Your task to perform on an android device: Open location settings Image 0: 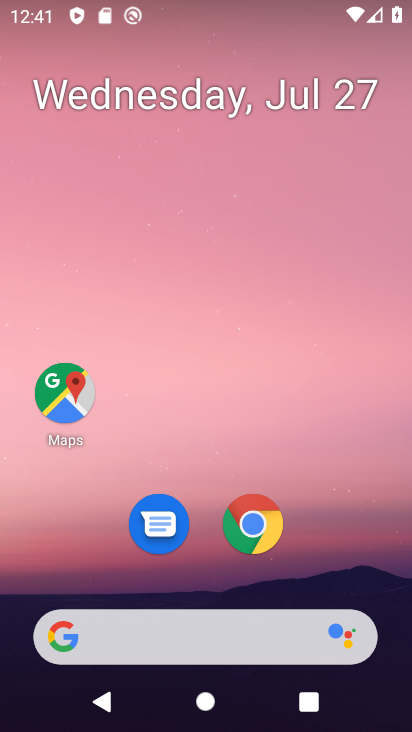
Step 0: drag from (317, 523) to (363, 42)
Your task to perform on an android device: Open location settings Image 1: 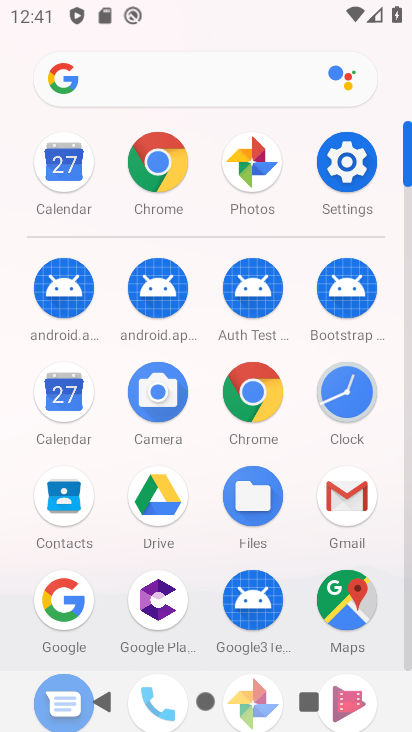
Step 1: click (357, 164)
Your task to perform on an android device: Open location settings Image 2: 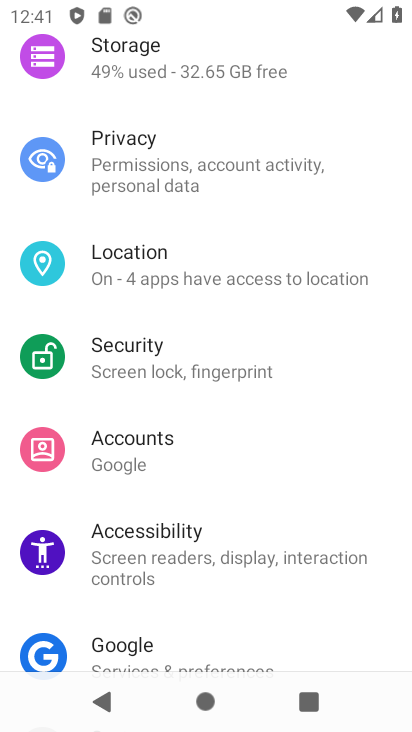
Step 2: click (226, 271)
Your task to perform on an android device: Open location settings Image 3: 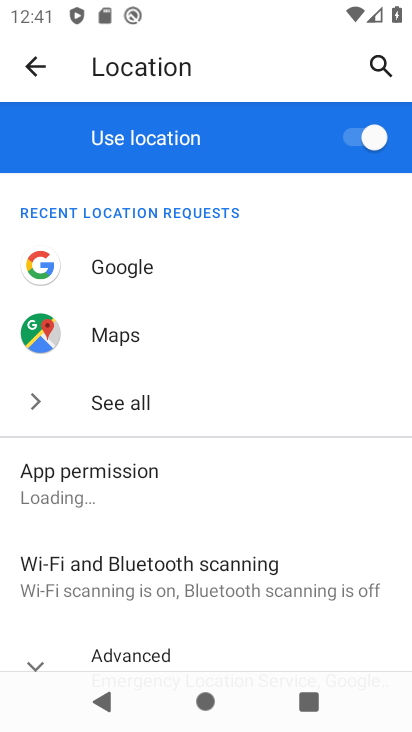
Step 3: task complete